Your task to perform on an android device: turn notification dots off Image 0: 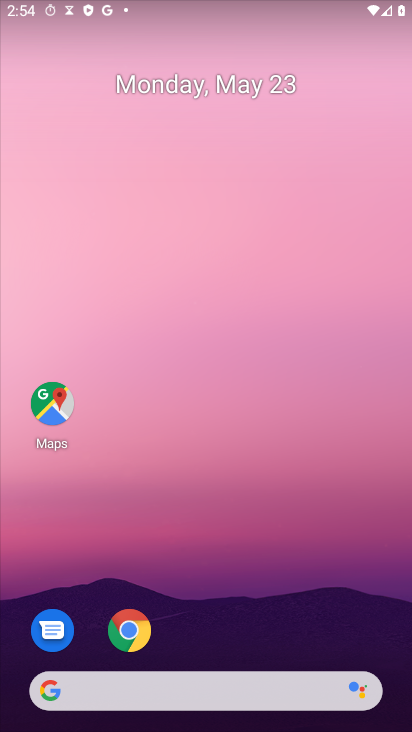
Step 0: drag from (282, 530) to (331, 64)
Your task to perform on an android device: turn notification dots off Image 1: 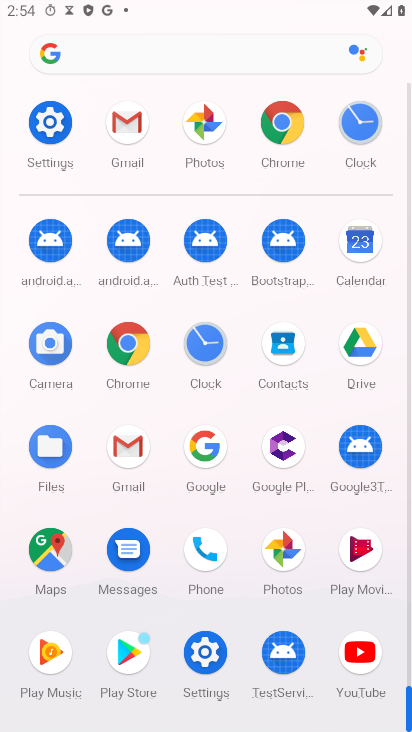
Step 1: click (38, 120)
Your task to perform on an android device: turn notification dots off Image 2: 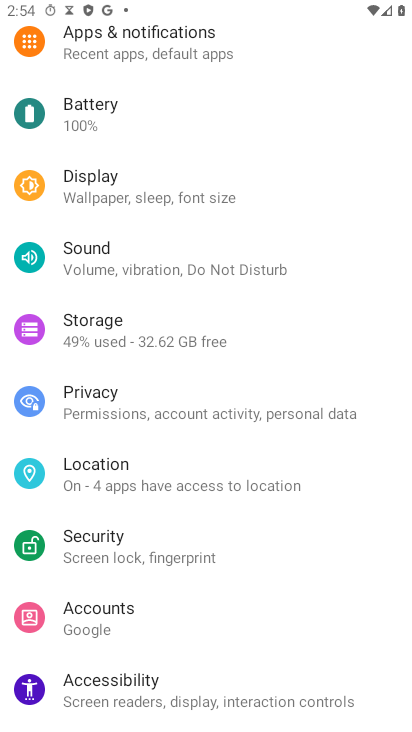
Step 2: drag from (248, 247) to (291, 667)
Your task to perform on an android device: turn notification dots off Image 3: 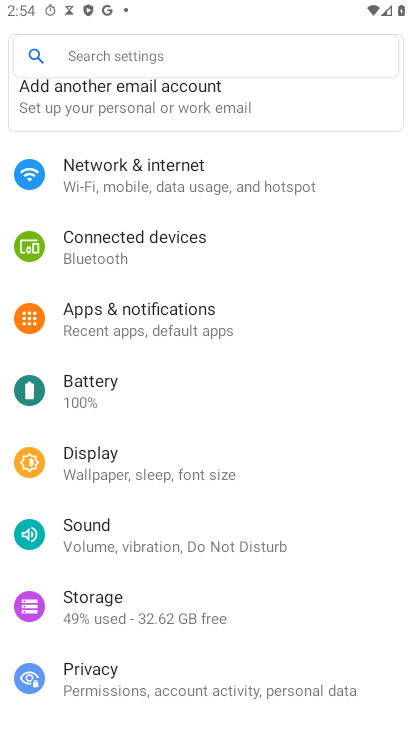
Step 3: click (157, 317)
Your task to perform on an android device: turn notification dots off Image 4: 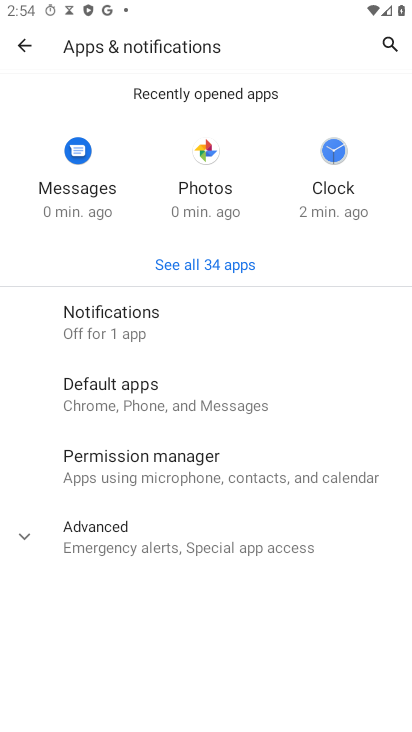
Step 4: click (105, 323)
Your task to perform on an android device: turn notification dots off Image 5: 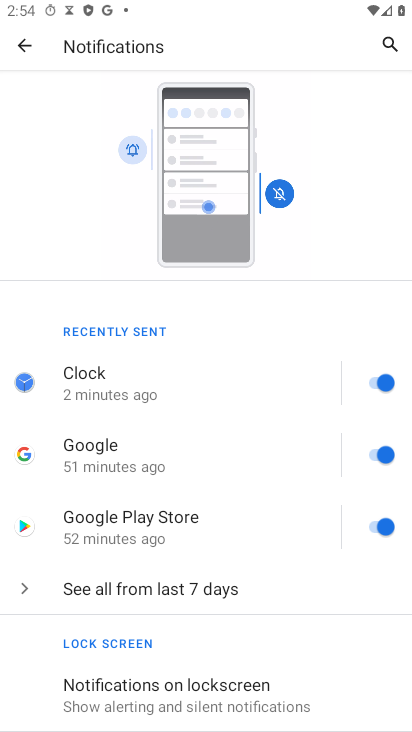
Step 5: drag from (284, 602) to (307, 209)
Your task to perform on an android device: turn notification dots off Image 6: 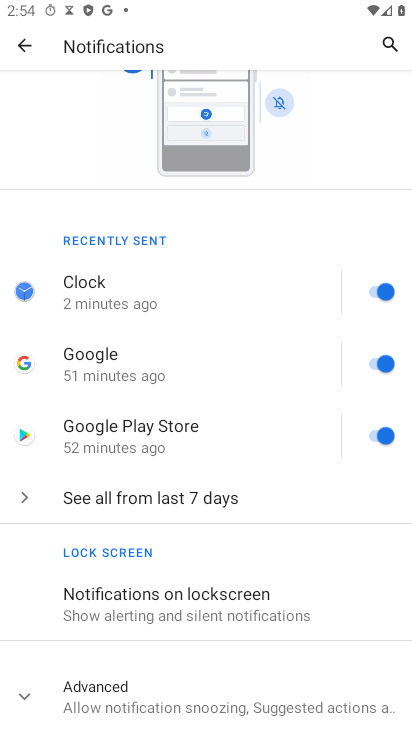
Step 6: click (252, 589)
Your task to perform on an android device: turn notification dots off Image 7: 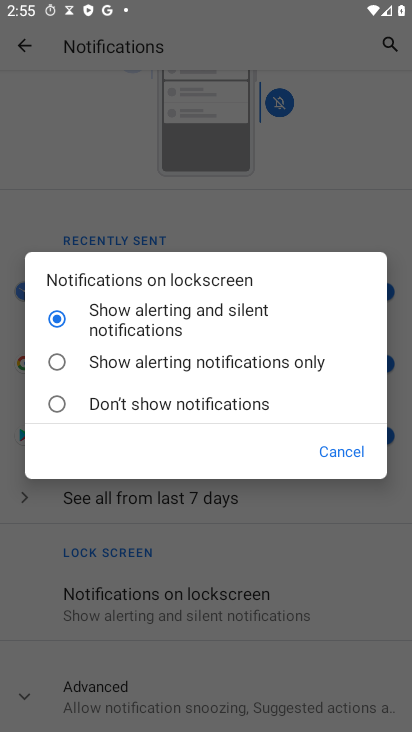
Step 7: click (349, 451)
Your task to perform on an android device: turn notification dots off Image 8: 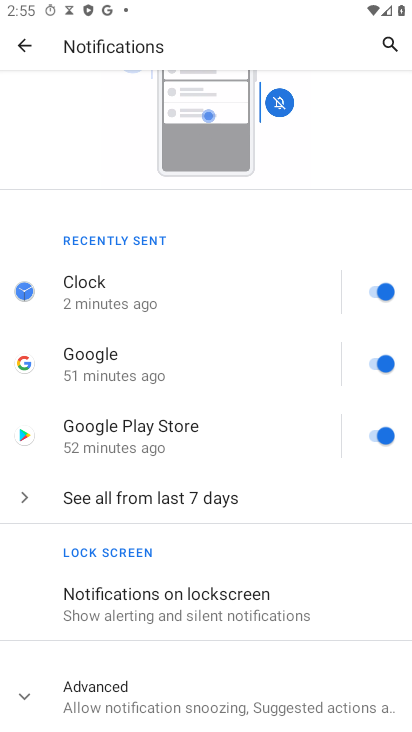
Step 8: drag from (277, 660) to (299, 236)
Your task to perform on an android device: turn notification dots off Image 9: 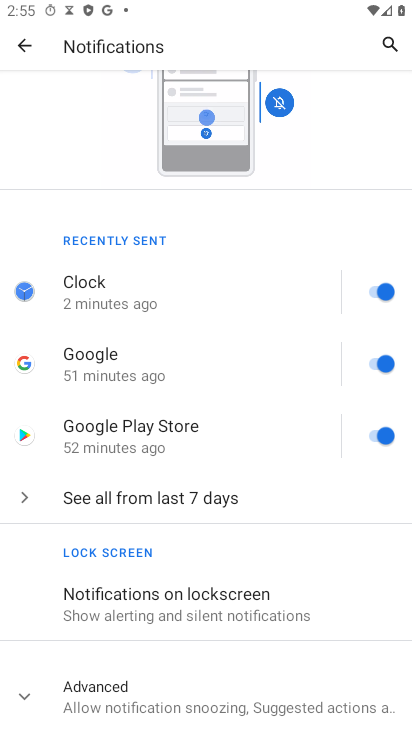
Step 9: click (146, 700)
Your task to perform on an android device: turn notification dots off Image 10: 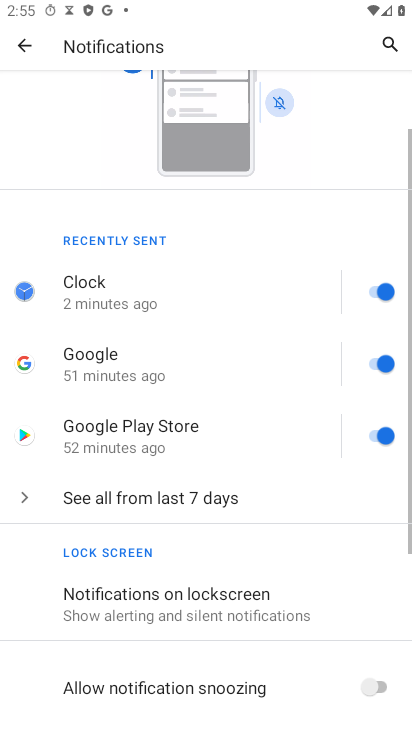
Step 10: drag from (143, 682) to (203, 177)
Your task to perform on an android device: turn notification dots off Image 11: 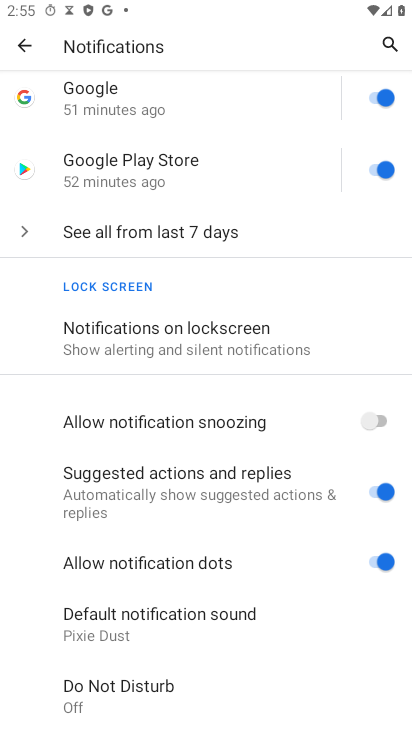
Step 11: click (371, 560)
Your task to perform on an android device: turn notification dots off Image 12: 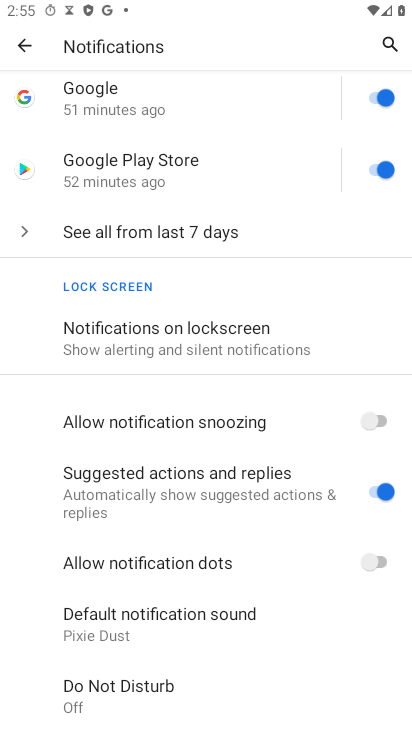
Step 12: task complete